Your task to perform on an android device: open app "VLC for Android" (install if not already installed) and go to login screen Image 0: 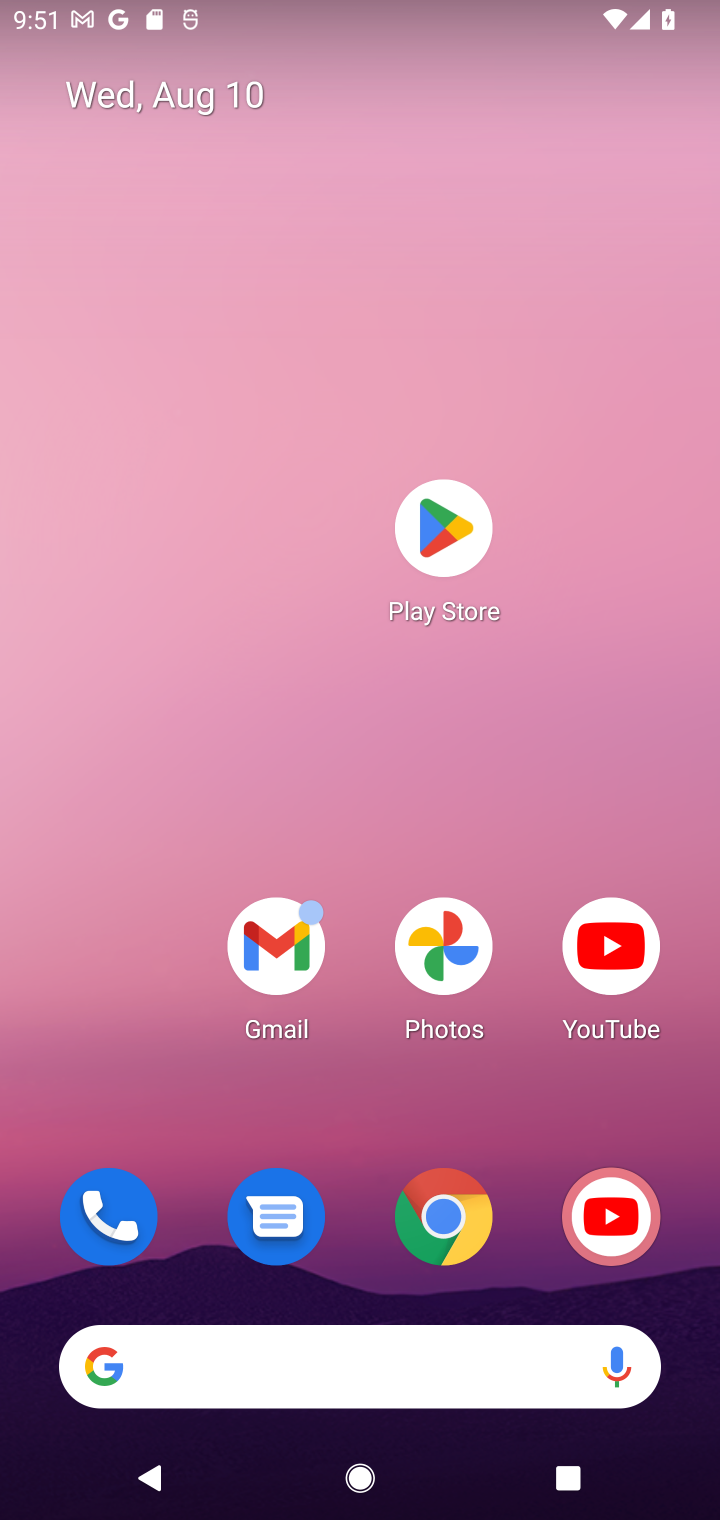
Step 0: press home button
Your task to perform on an android device: open app "VLC for Android" (install if not already installed) and go to login screen Image 1: 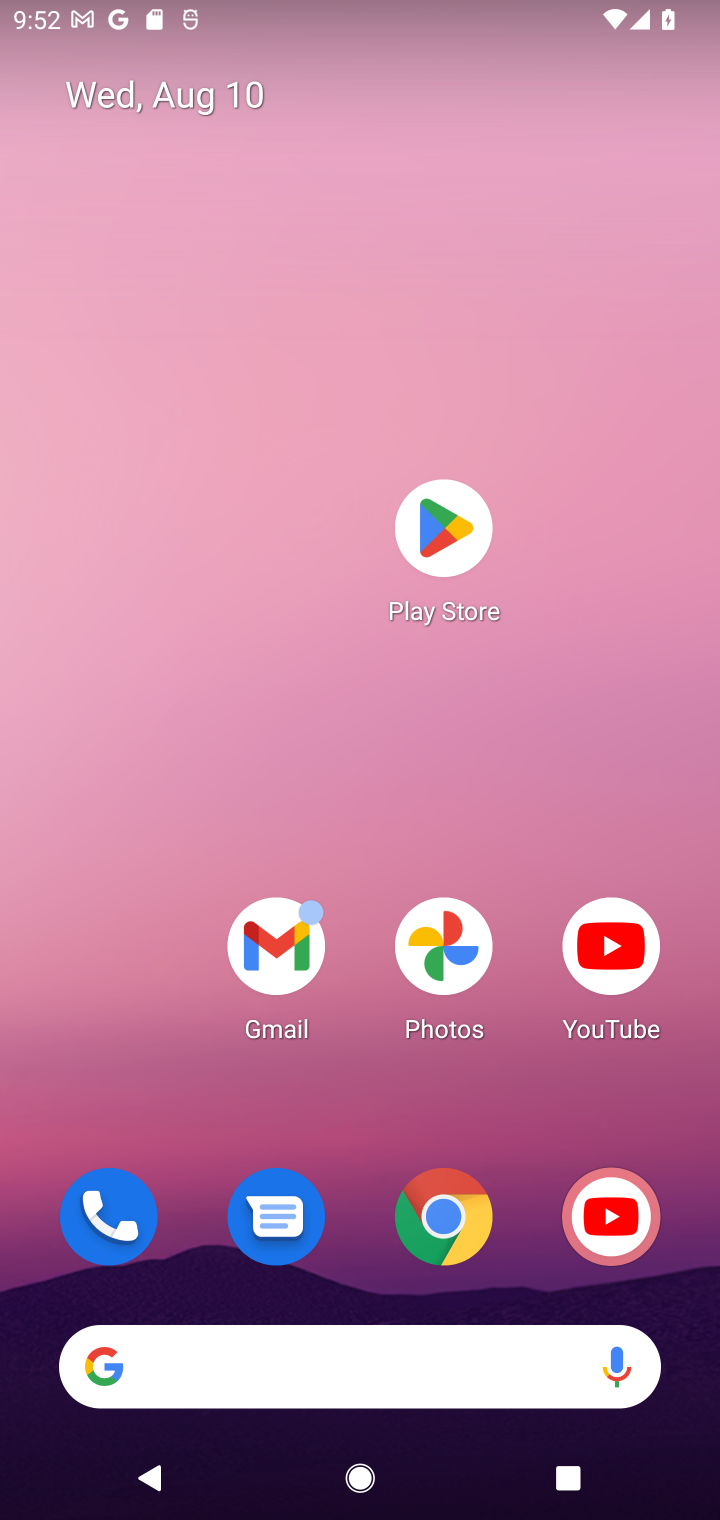
Step 1: click (447, 530)
Your task to perform on an android device: open app "VLC for Android" (install if not already installed) and go to login screen Image 2: 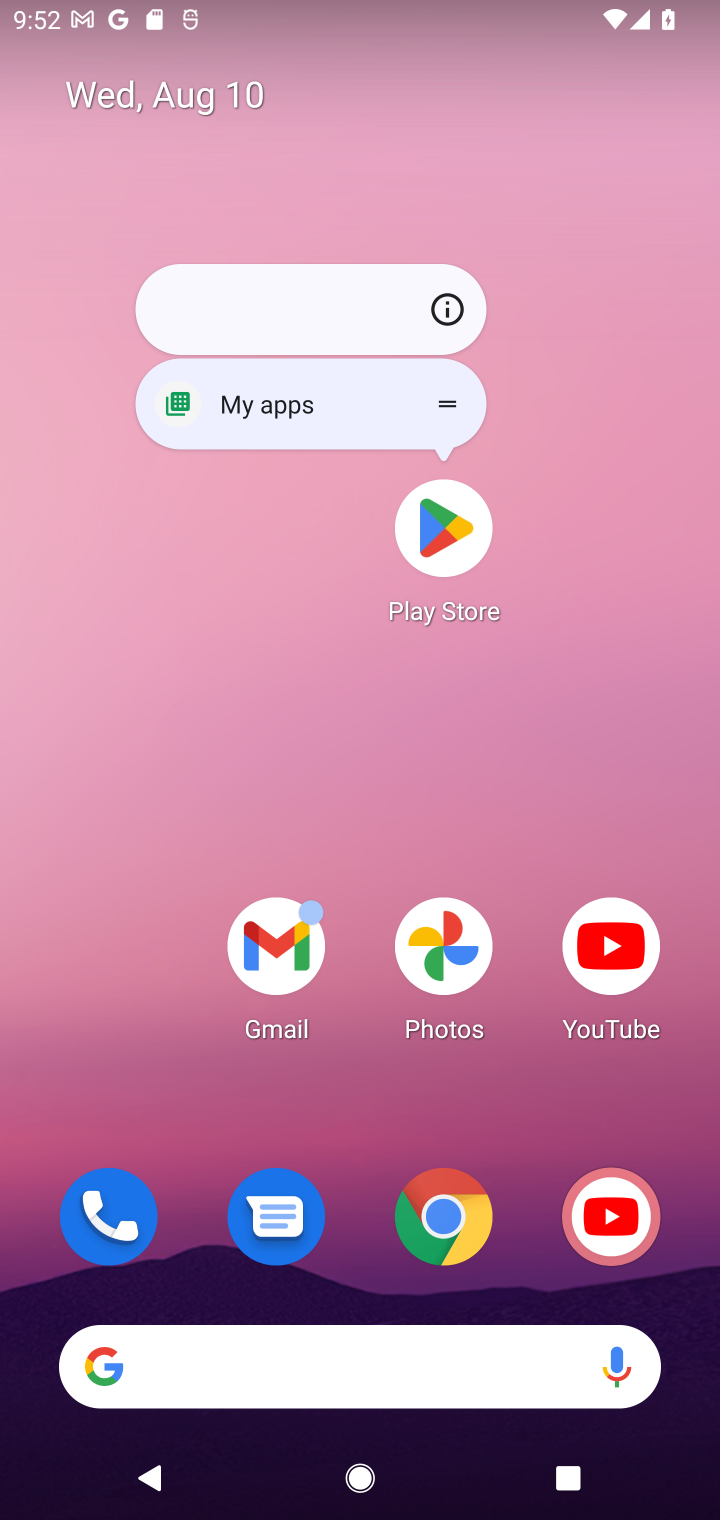
Step 2: click (447, 528)
Your task to perform on an android device: open app "VLC for Android" (install if not already installed) and go to login screen Image 3: 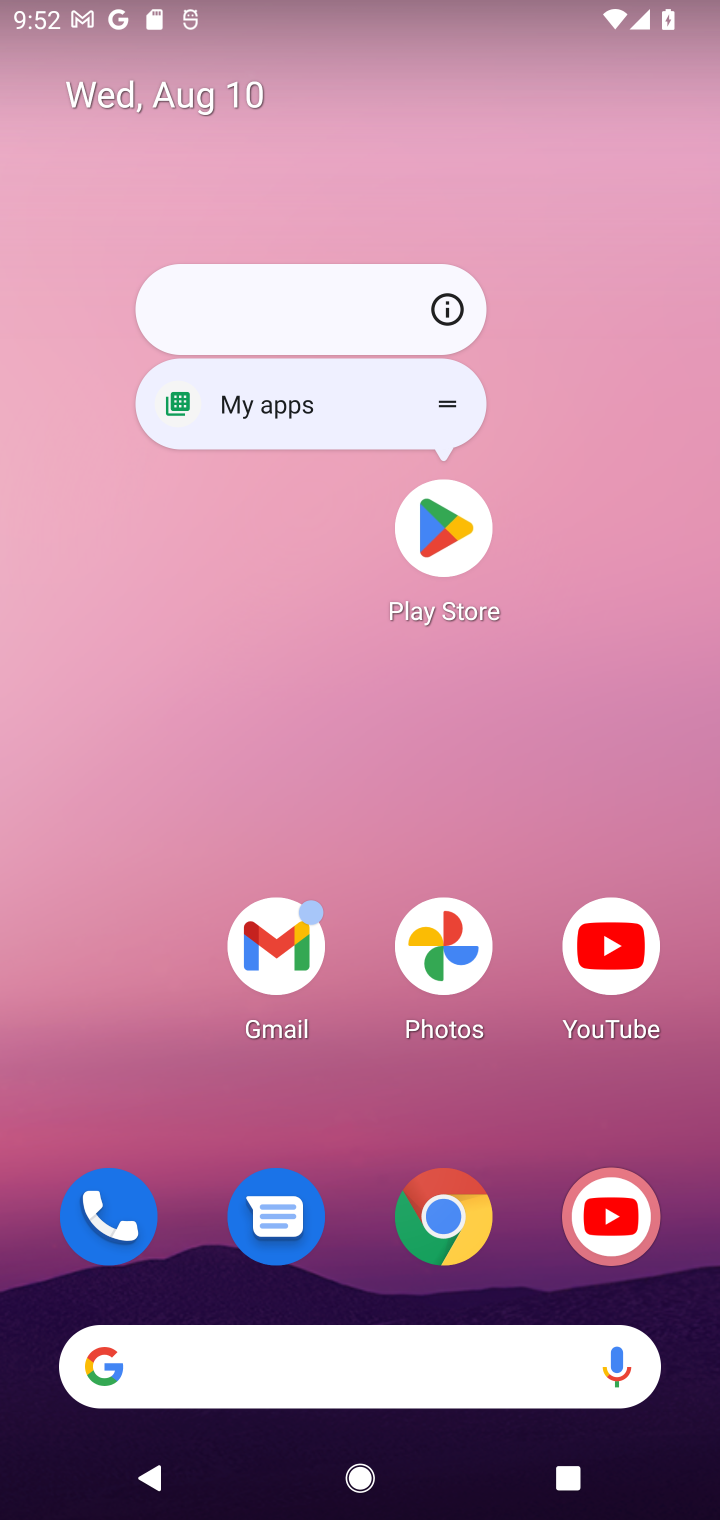
Step 3: click (447, 530)
Your task to perform on an android device: open app "VLC for Android" (install if not already installed) and go to login screen Image 4: 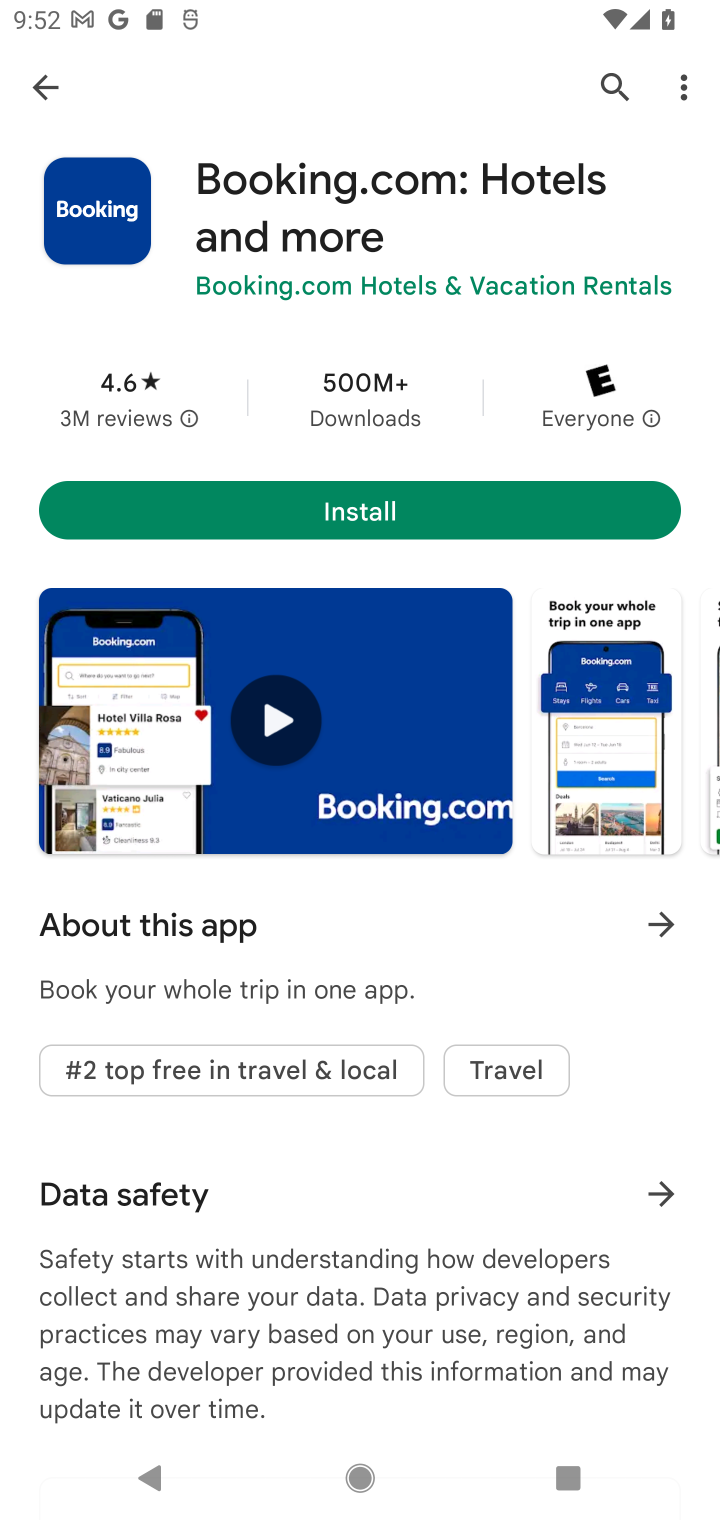
Step 4: click (611, 78)
Your task to perform on an android device: open app "VLC for Android" (install if not already installed) and go to login screen Image 5: 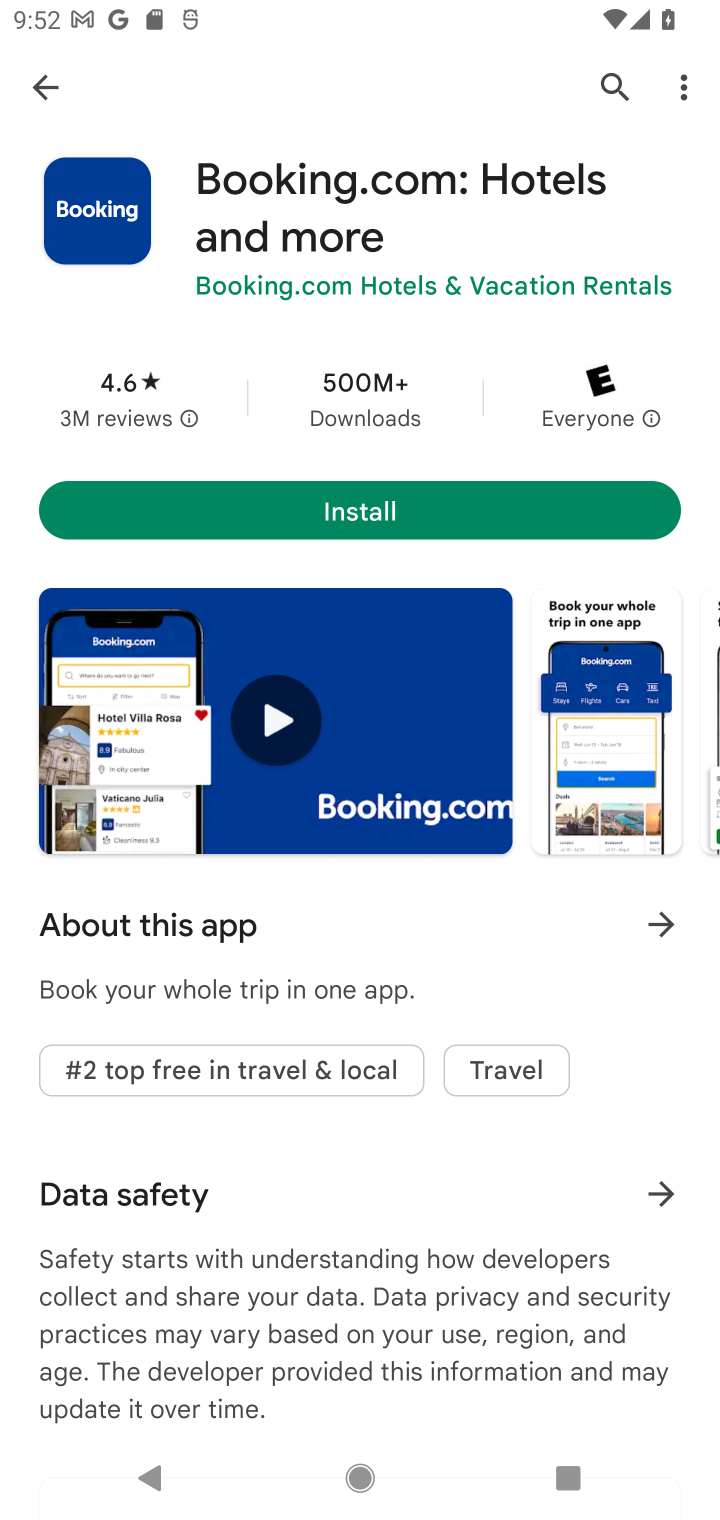
Step 5: click (601, 93)
Your task to perform on an android device: open app "VLC for Android" (install if not already installed) and go to login screen Image 6: 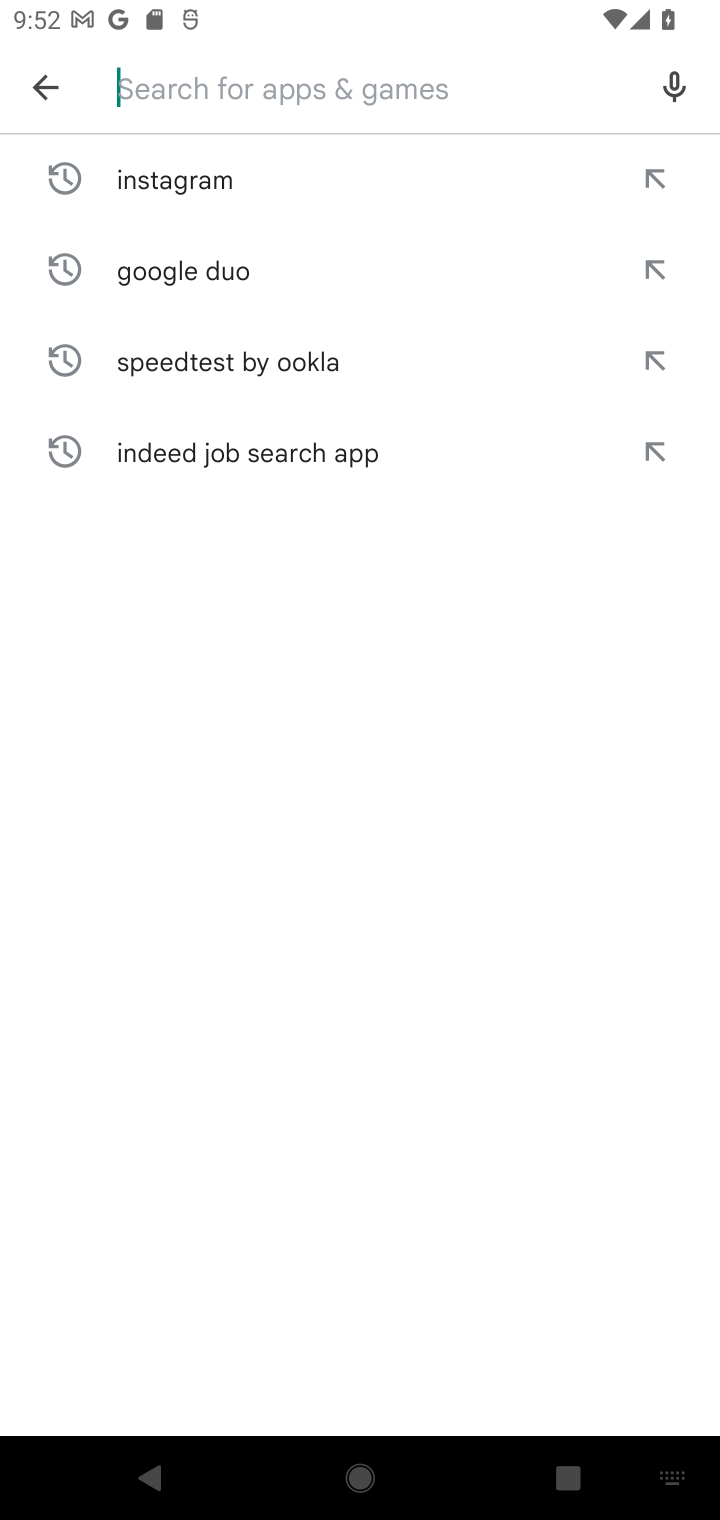
Step 6: type "VLC for Android"
Your task to perform on an android device: open app "VLC for Android" (install if not already installed) and go to login screen Image 7: 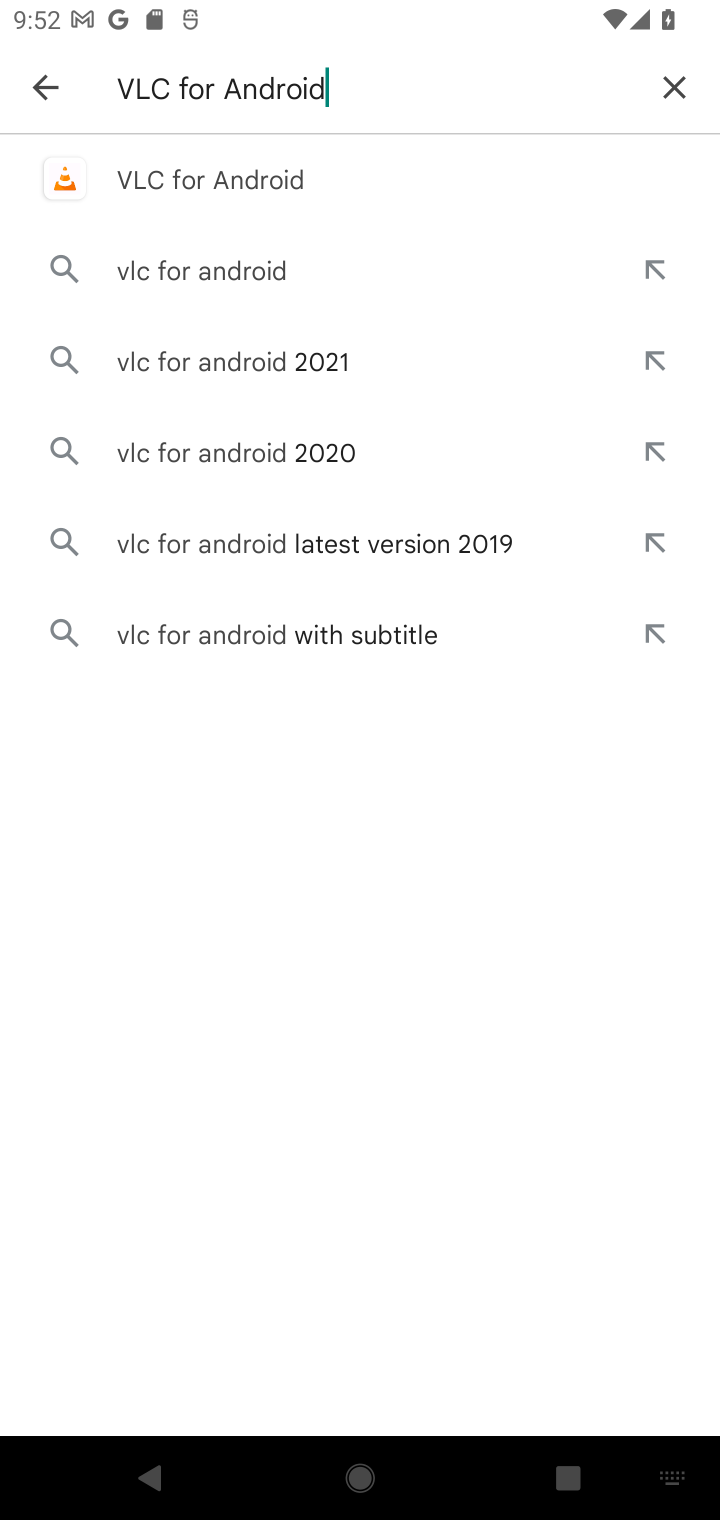
Step 7: click (220, 178)
Your task to perform on an android device: open app "VLC for Android" (install if not already installed) and go to login screen Image 8: 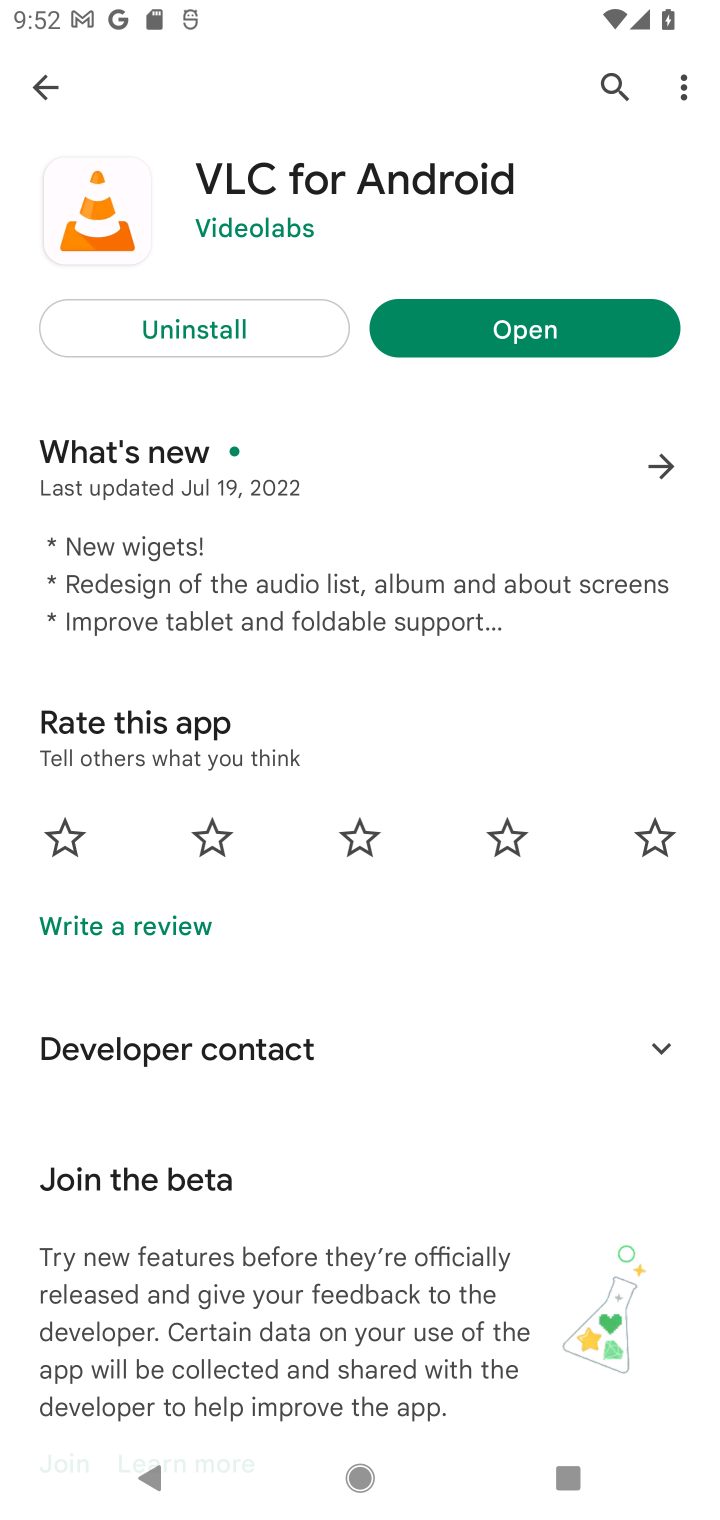
Step 8: click (498, 327)
Your task to perform on an android device: open app "VLC for Android" (install if not already installed) and go to login screen Image 9: 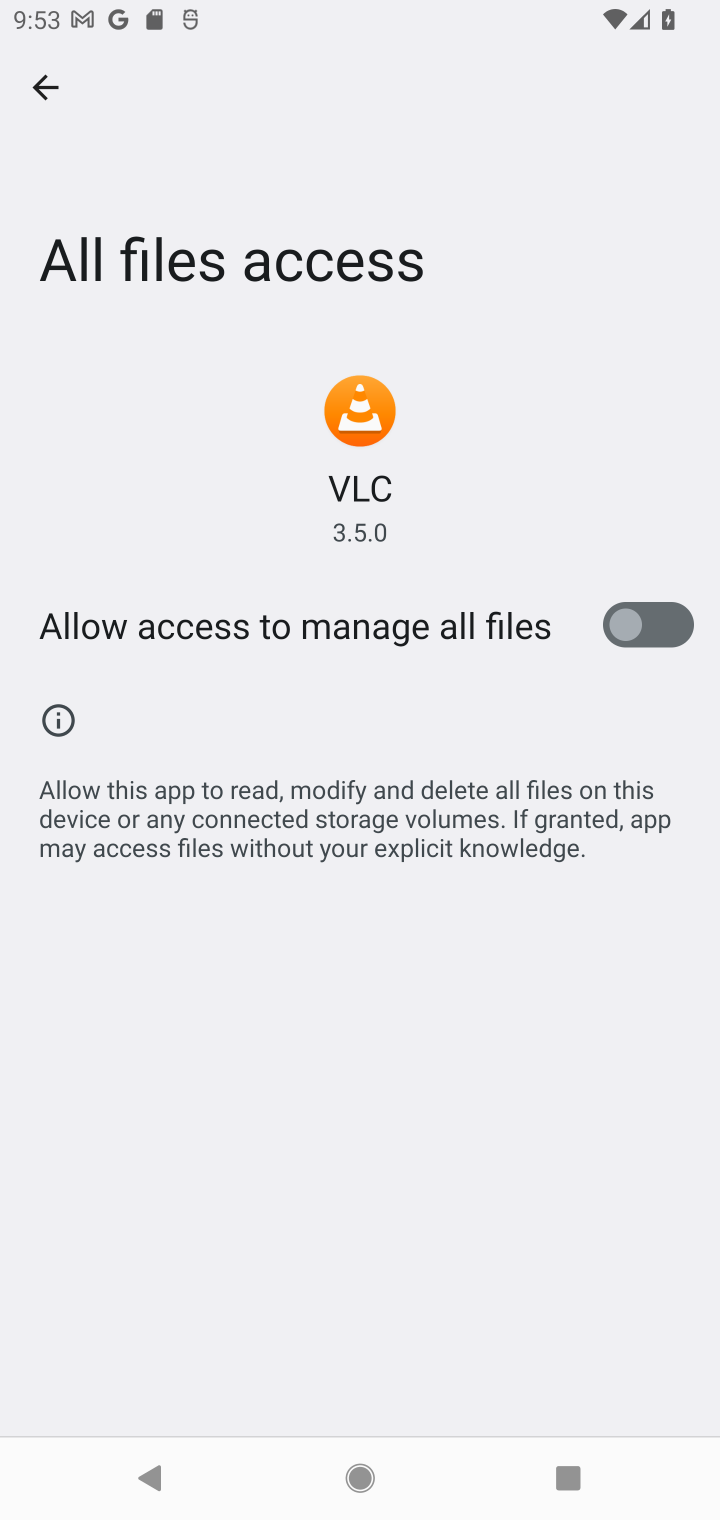
Step 9: task complete